Your task to perform on an android device: turn vacation reply on in the gmail app Image 0: 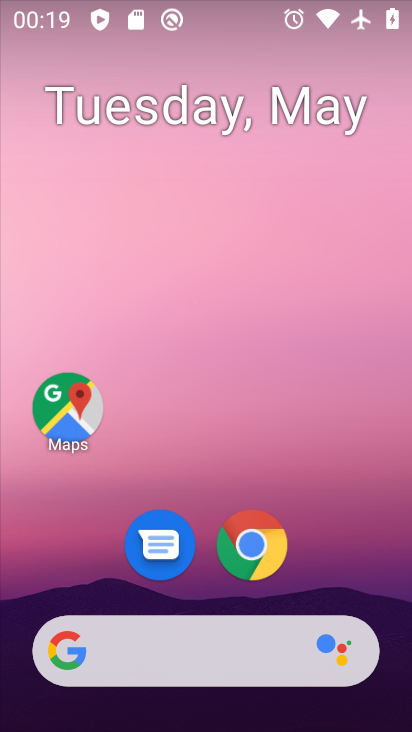
Step 0: drag from (363, 588) to (303, 20)
Your task to perform on an android device: turn vacation reply on in the gmail app Image 1: 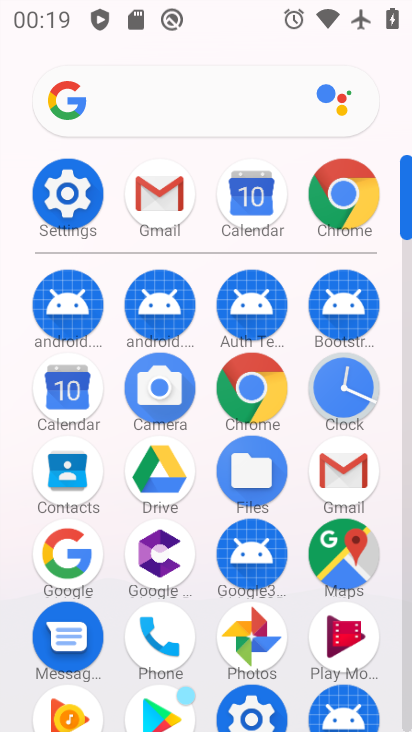
Step 1: click (160, 218)
Your task to perform on an android device: turn vacation reply on in the gmail app Image 2: 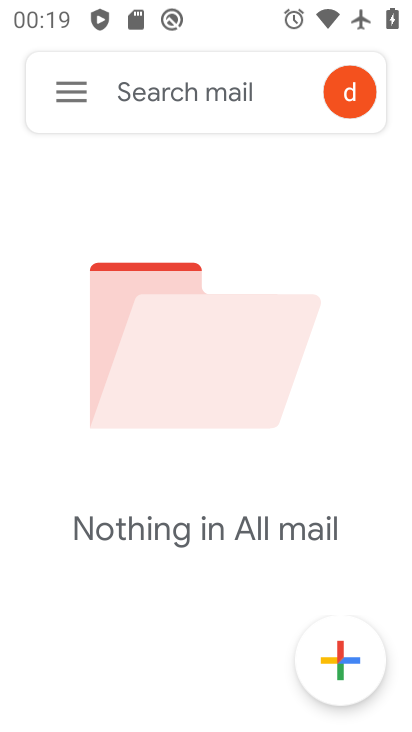
Step 2: click (85, 89)
Your task to perform on an android device: turn vacation reply on in the gmail app Image 3: 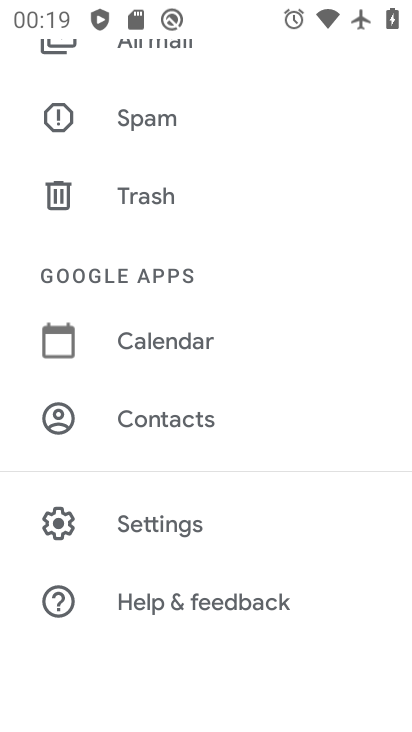
Step 3: click (195, 519)
Your task to perform on an android device: turn vacation reply on in the gmail app Image 4: 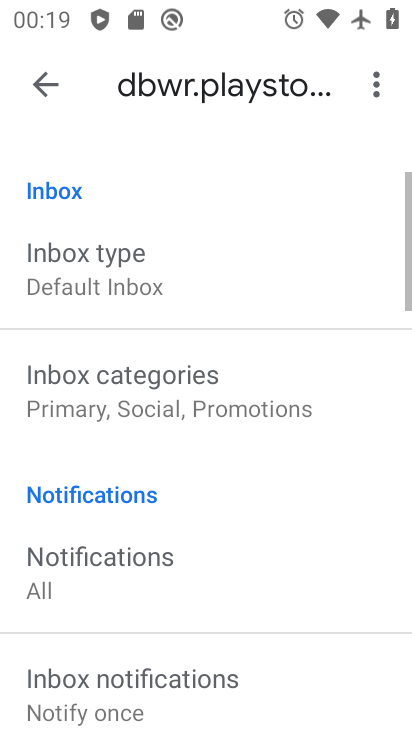
Step 4: drag from (182, 533) to (213, 415)
Your task to perform on an android device: turn vacation reply on in the gmail app Image 5: 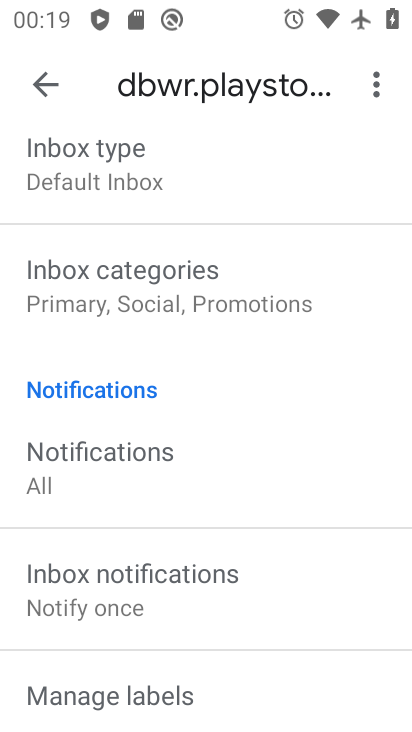
Step 5: drag from (261, 589) to (303, 416)
Your task to perform on an android device: turn vacation reply on in the gmail app Image 6: 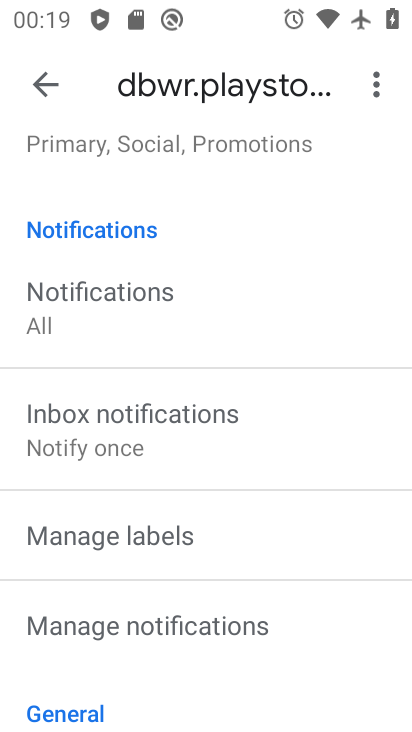
Step 6: drag from (204, 581) to (227, 450)
Your task to perform on an android device: turn vacation reply on in the gmail app Image 7: 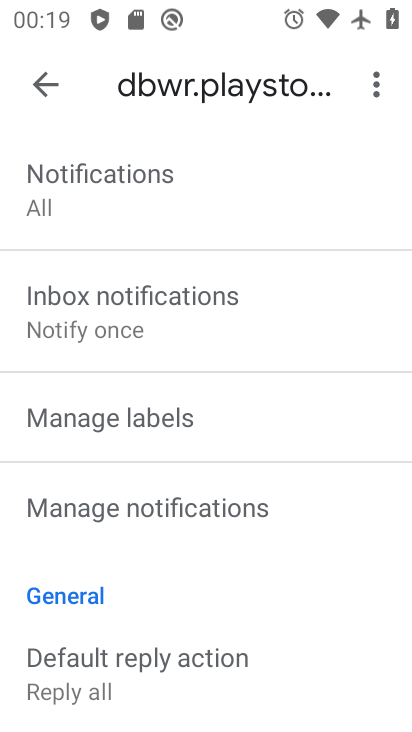
Step 7: drag from (215, 573) to (235, 467)
Your task to perform on an android device: turn vacation reply on in the gmail app Image 8: 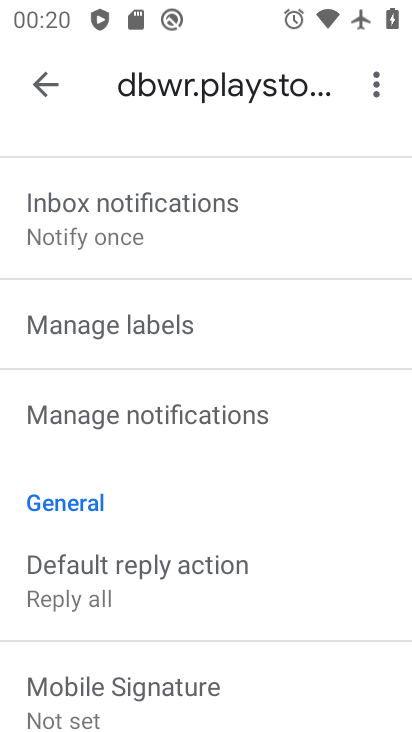
Step 8: drag from (181, 582) to (190, 494)
Your task to perform on an android device: turn vacation reply on in the gmail app Image 9: 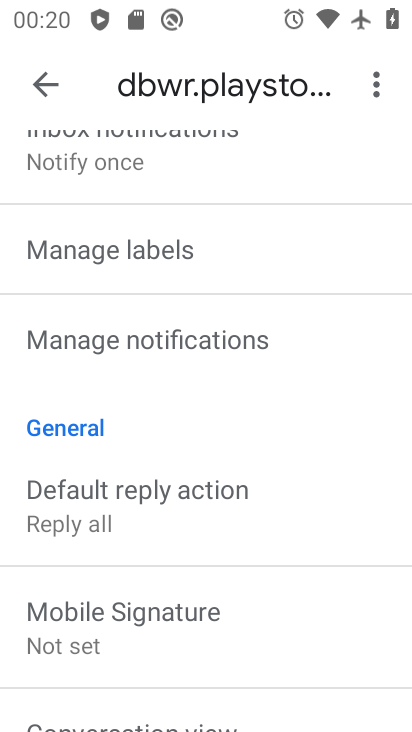
Step 9: drag from (152, 588) to (170, 513)
Your task to perform on an android device: turn vacation reply on in the gmail app Image 10: 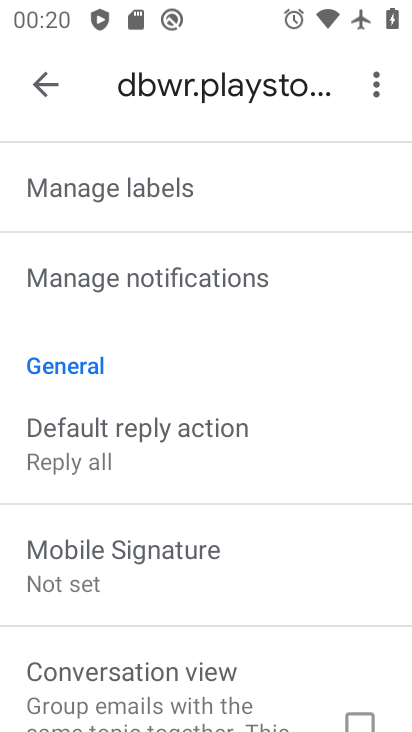
Step 10: drag from (199, 617) to (216, 559)
Your task to perform on an android device: turn vacation reply on in the gmail app Image 11: 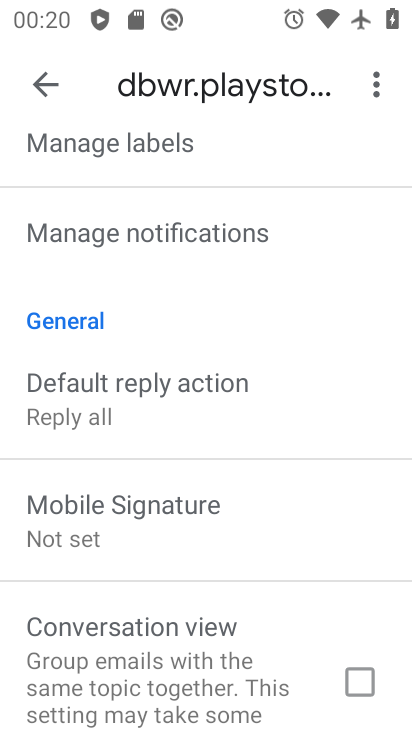
Step 11: drag from (225, 616) to (241, 526)
Your task to perform on an android device: turn vacation reply on in the gmail app Image 12: 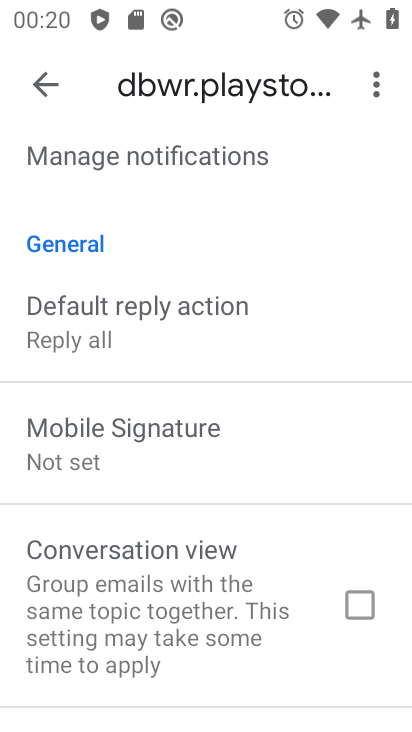
Step 12: drag from (232, 654) to (267, 549)
Your task to perform on an android device: turn vacation reply on in the gmail app Image 13: 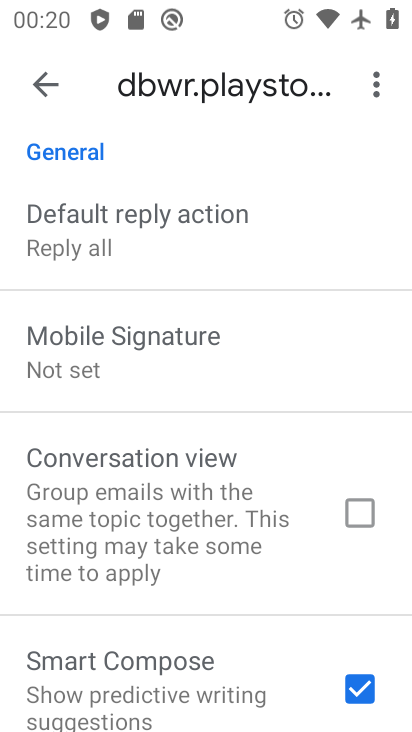
Step 13: drag from (270, 654) to (297, 547)
Your task to perform on an android device: turn vacation reply on in the gmail app Image 14: 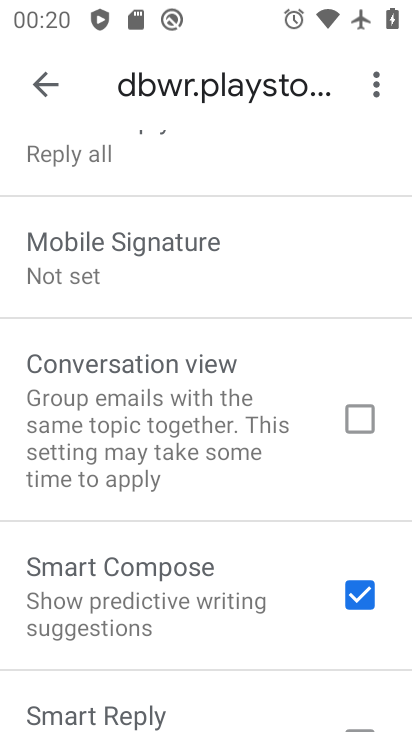
Step 14: drag from (263, 670) to (287, 584)
Your task to perform on an android device: turn vacation reply on in the gmail app Image 15: 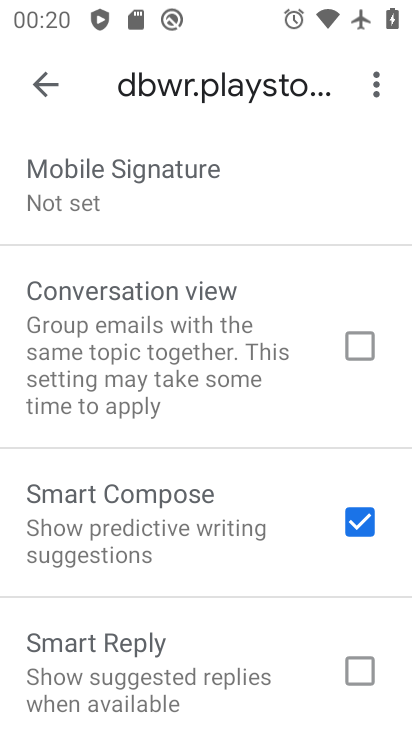
Step 15: drag from (273, 676) to (299, 568)
Your task to perform on an android device: turn vacation reply on in the gmail app Image 16: 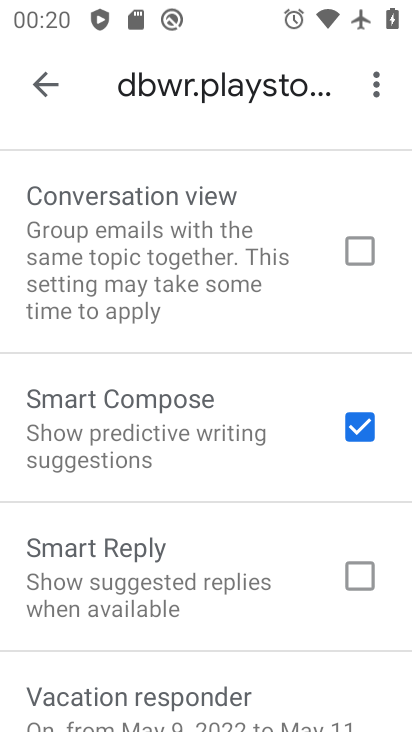
Step 16: click (211, 679)
Your task to perform on an android device: turn vacation reply on in the gmail app Image 17: 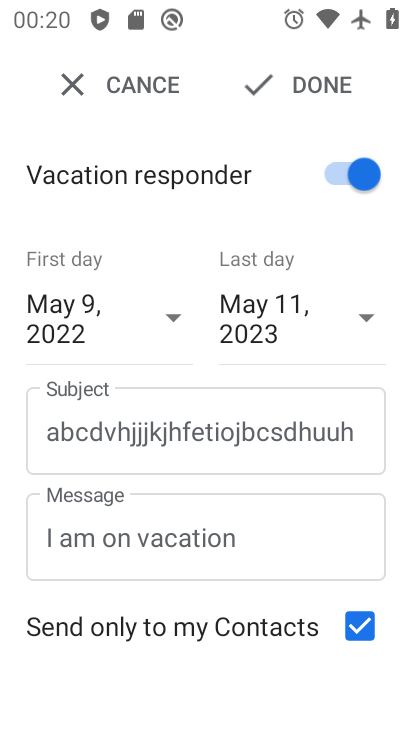
Step 17: click (302, 88)
Your task to perform on an android device: turn vacation reply on in the gmail app Image 18: 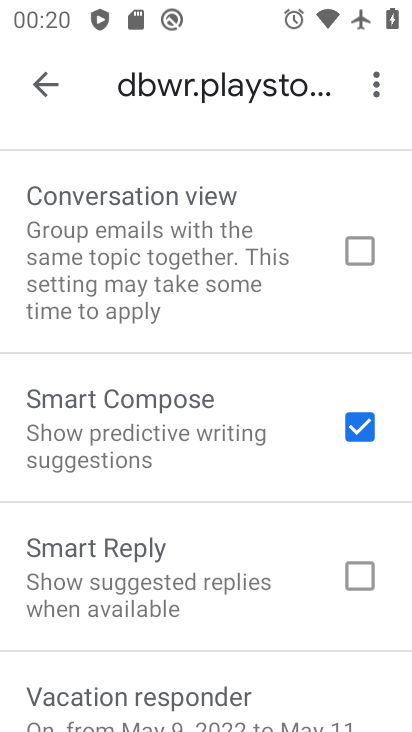
Step 18: task complete